Your task to perform on an android device: change your default location settings in chrome Image 0: 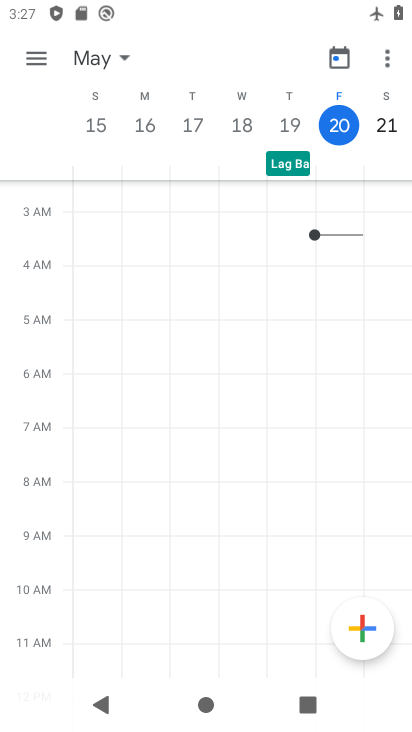
Step 0: press home button
Your task to perform on an android device: change your default location settings in chrome Image 1: 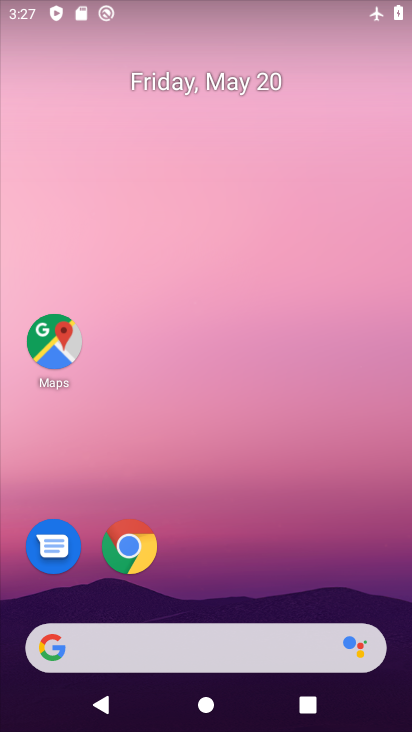
Step 1: click (128, 557)
Your task to perform on an android device: change your default location settings in chrome Image 2: 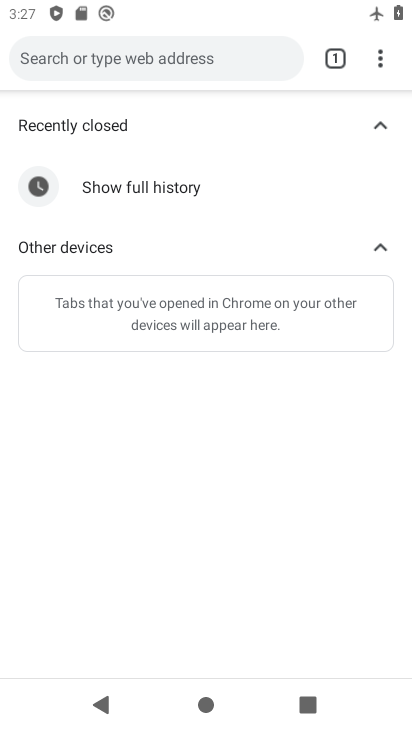
Step 2: click (386, 62)
Your task to perform on an android device: change your default location settings in chrome Image 3: 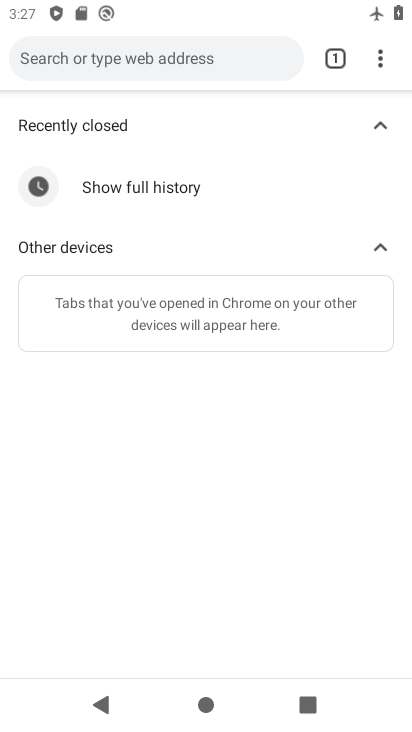
Step 3: drag from (386, 57) to (197, 494)
Your task to perform on an android device: change your default location settings in chrome Image 4: 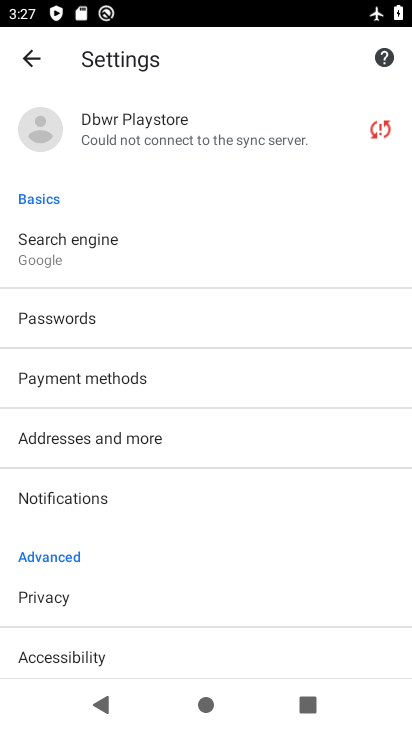
Step 4: drag from (121, 590) to (195, 172)
Your task to perform on an android device: change your default location settings in chrome Image 5: 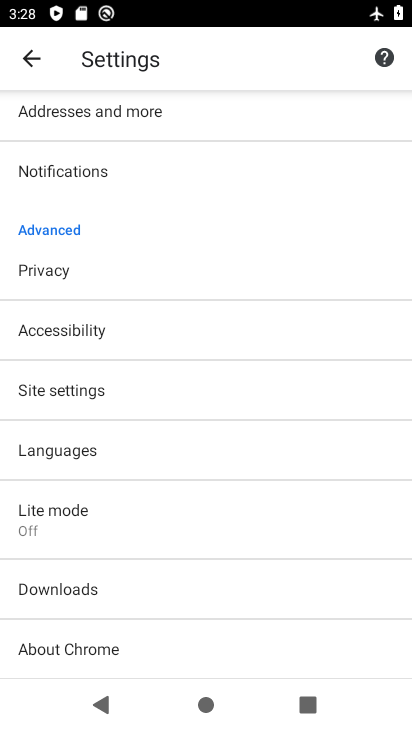
Step 5: click (96, 379)
Your task to perform on an android device: change your default location settings in chrome Image 6: 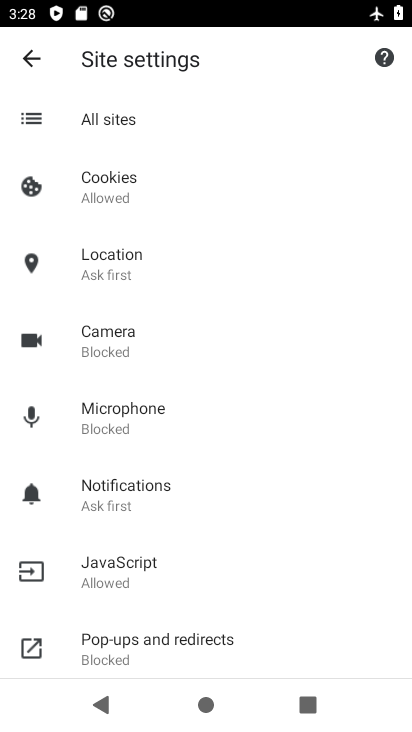
Step 6: click (165, 261)
Your task to perform on an android device: change your default location settings in chrome Image 7: 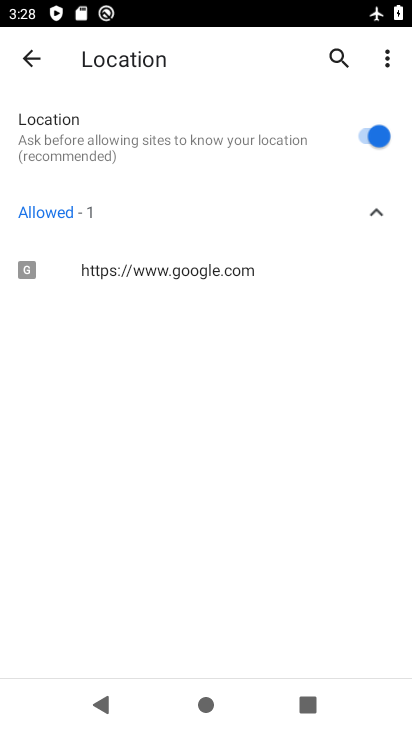
Step 7: click (368, 128)
Your task to perform on an android device: change your default location settings in chrome Image 8: 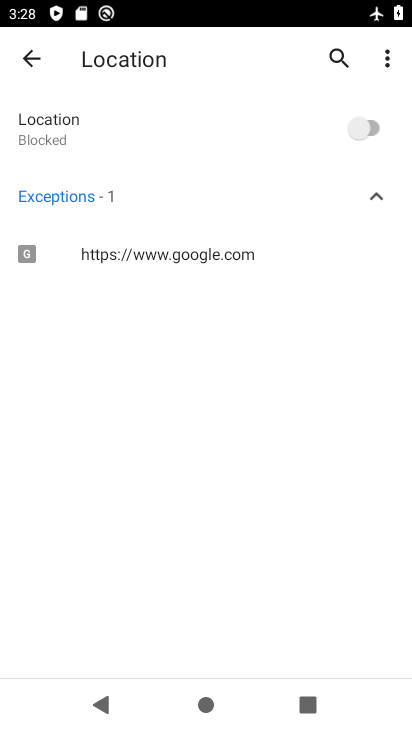
Step 8: task complete